Your task to perform on an android device: Go to display settings Image 0: 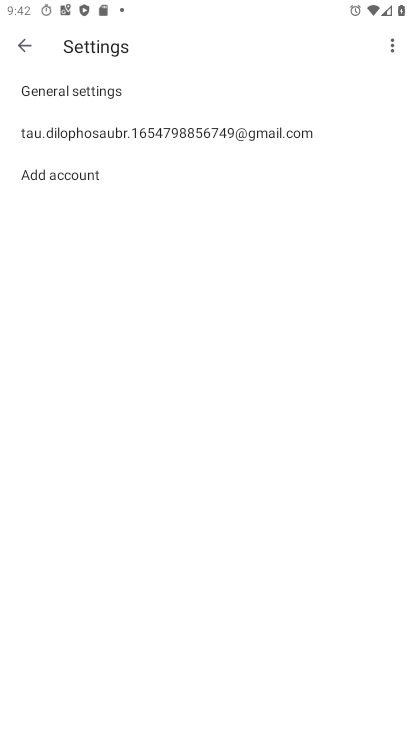
Step 0: press home button
Your task to perform on an android device: Go to display settings Image 1: 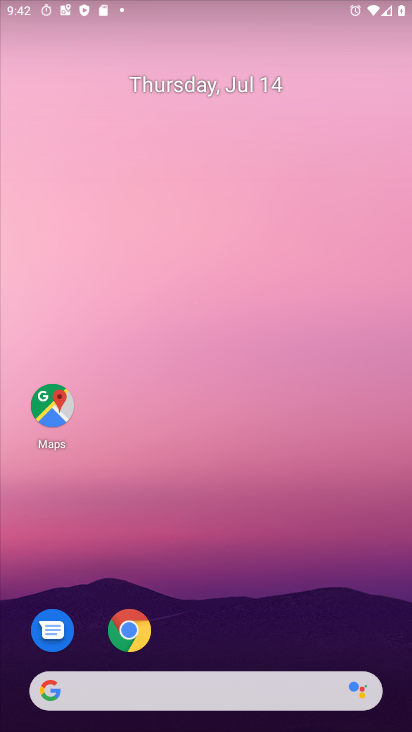
Step 1: drag from (224, 725) to (215, 287)
Your task to perform on an android device: Go to display settings Image 2: 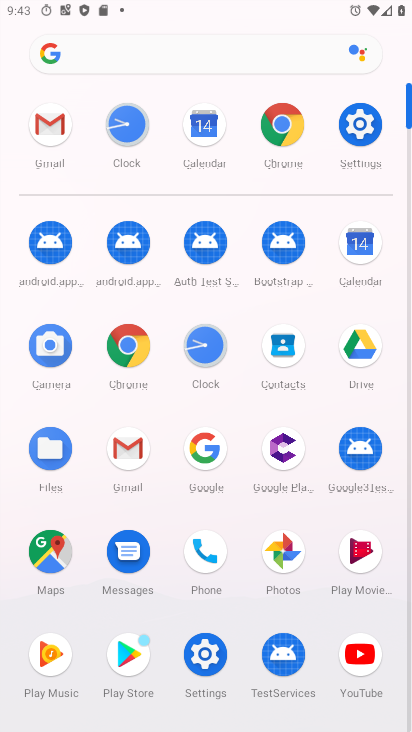
Step 2: click (356, 129)
Your task to perform on an android device: Go to display settings Image 3: 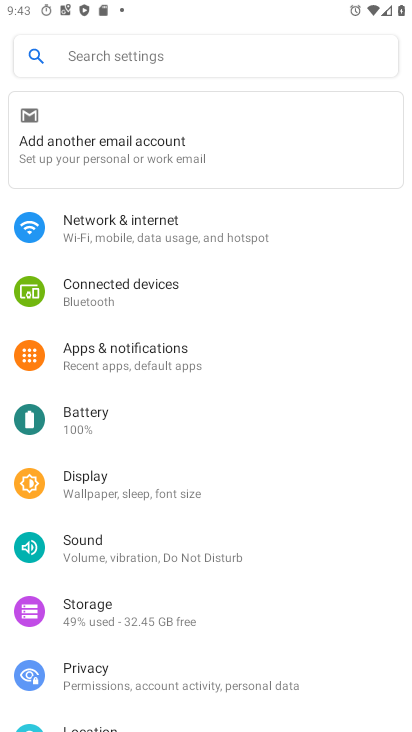
Step 3: click (76, 478)
Your task to perform on an android device: Go to display settings Image 4: 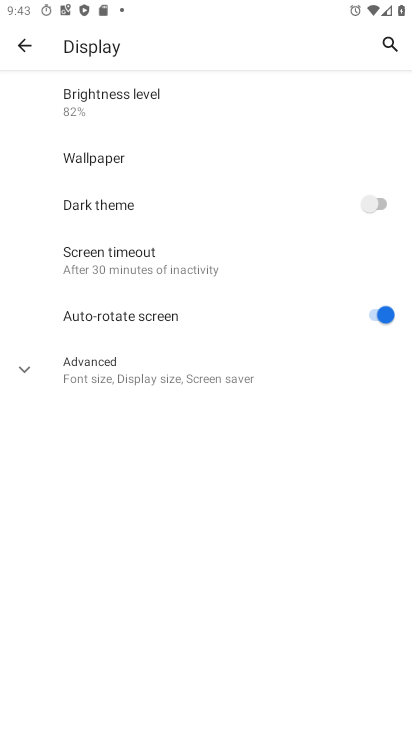
Step 4: task complete